Your task to perform on an android device: open app "Grab" (install if not already installed) Image 0: 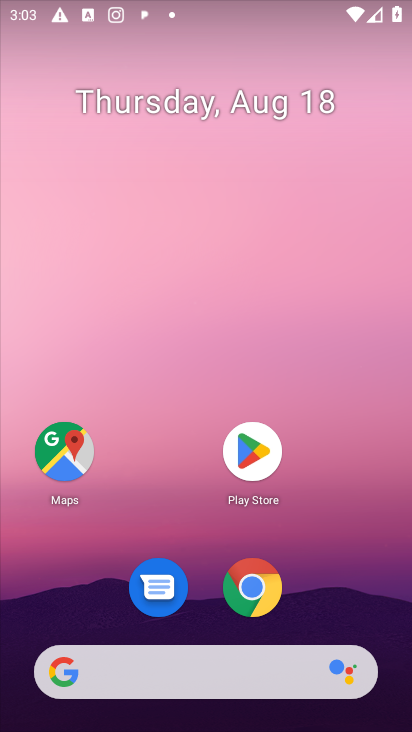
Step 0: press home button
Your task to perform on an android device: open app "Grab" (install if not already installed) Image 1: 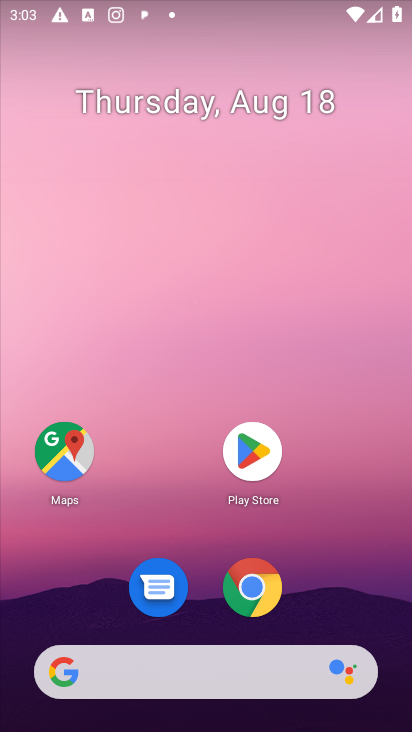
Step 1: click (255, 452)
Your task to perform on an android device: open app "Grab" (install if not already installed) Image 2: 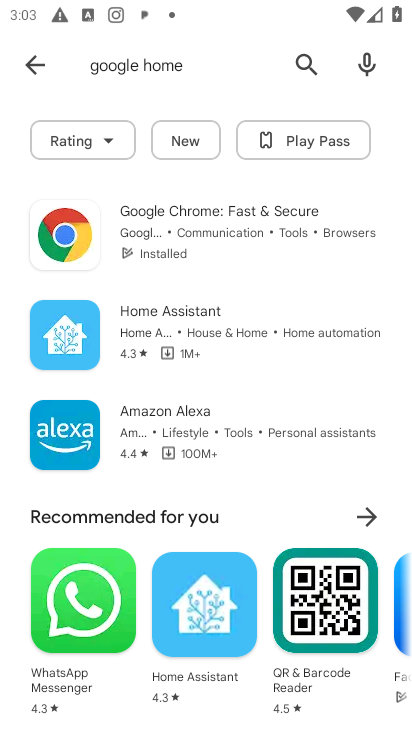
Step 2: click (303, 59)
Your task to perform on an android device: open app "Grab" (install if not already installed) Image 3: 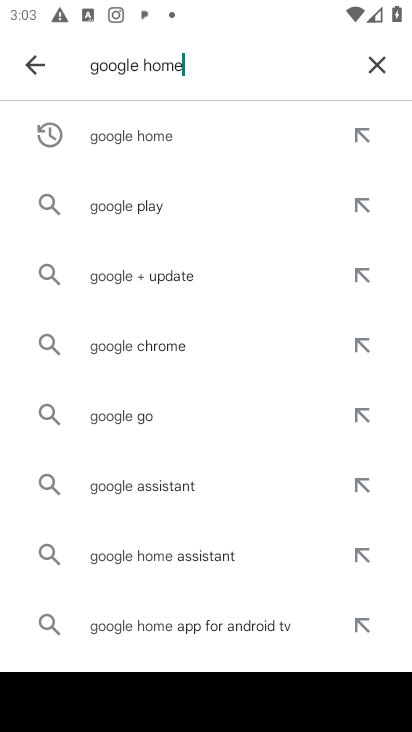
Step 3: click (375, 61)
Your task to perform on an android device: open app "Grab" (install if not already installed) Image 4: 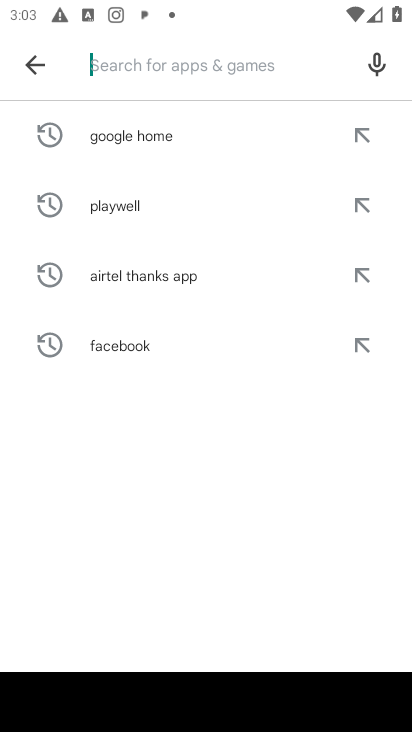
Step 4: type "Grab"
Your task to perform on an android device: open app "Grab" (install if not already installed) Image 5: 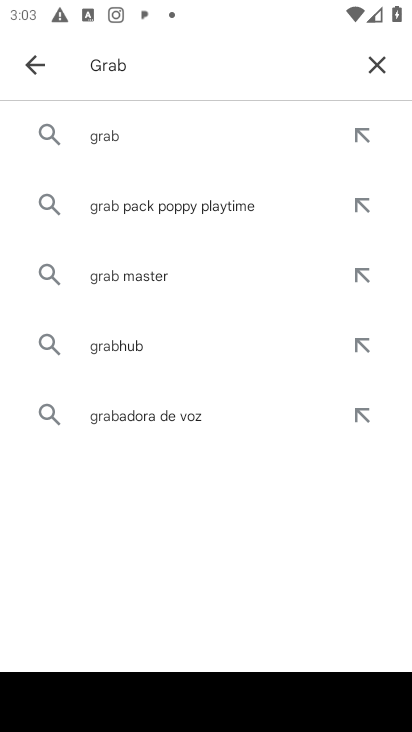
Step 5: click (109, 135)
Your task to perform on an android device: open app "Grab" (install if not already installed) Image 6: 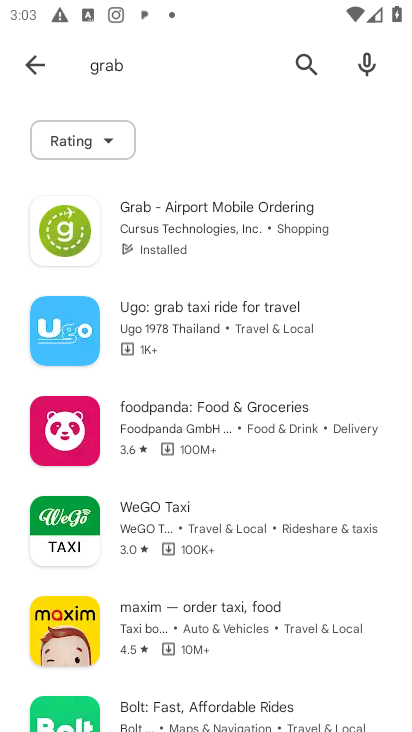
Step 6: click (211, 224)
Your task to perform on an android device: open app "Grab" (install if not already installed) Image 7: 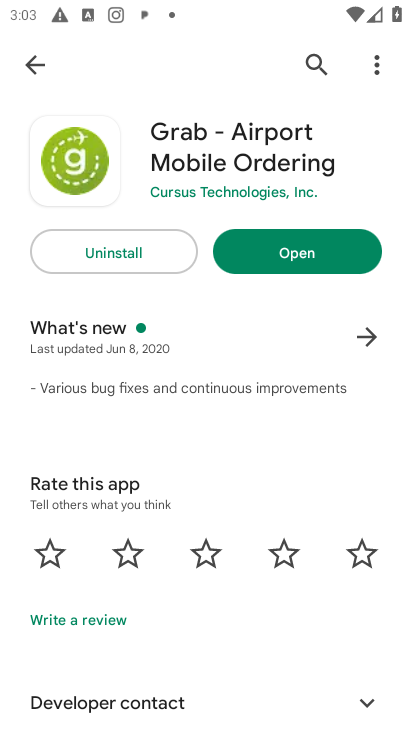
Step 7: click (326, 247)
Your task to perform on an android device: open app "Grab" (install if not already installed) Image 8: 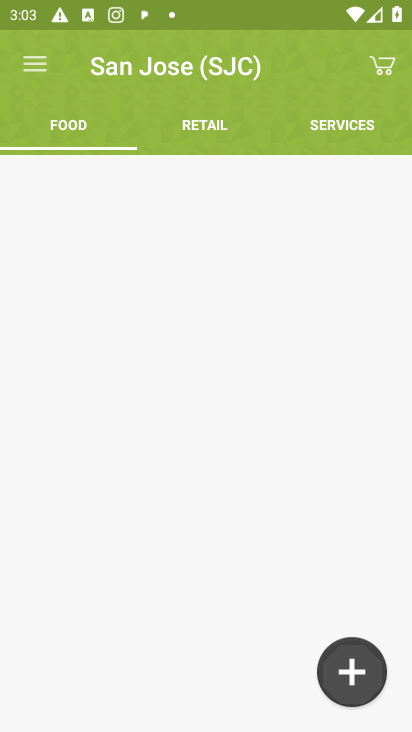
Step 8: task complete